Your task to perform on an android device: toggle data saver in the chrome app Image 0: 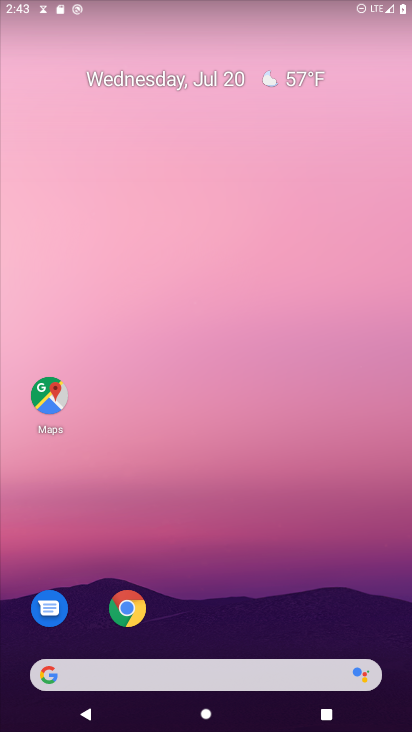
Step 0: click (127, 614)
Your task to perform on an android device: toggle data saver in the chrome app Image 1: 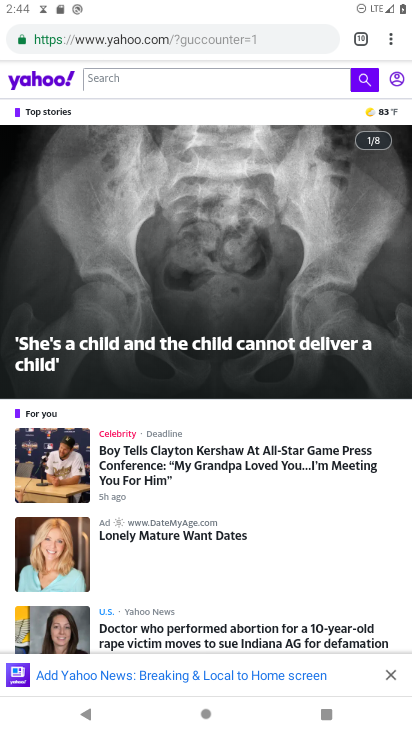
Step 1: click (392, 42)
Your task to perform on an android device: toggle data saver in the chrome app Image 2: 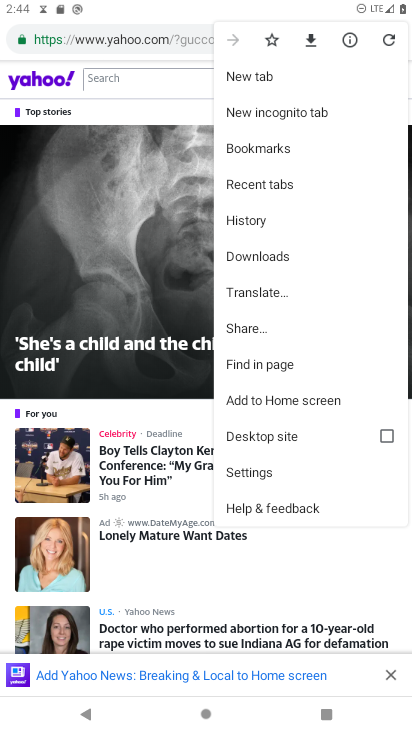
Step 2: click (255, 473)
Your task to perform on an android device: toggle data saver in the chrome app Image 3: 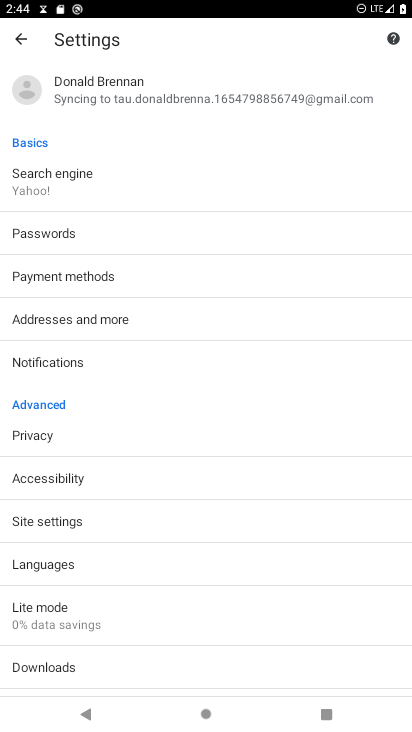
Step 3: click (30, 609)
Your task to perform on an android device: toggle data saver in the chrome app Image 4: 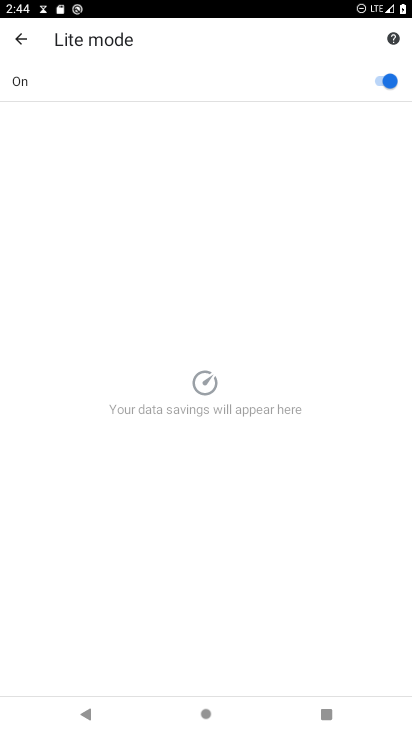
Step 4: click (386, 80)
Your task to perform on an android device: toggle data saver in the chrome app Image 5: 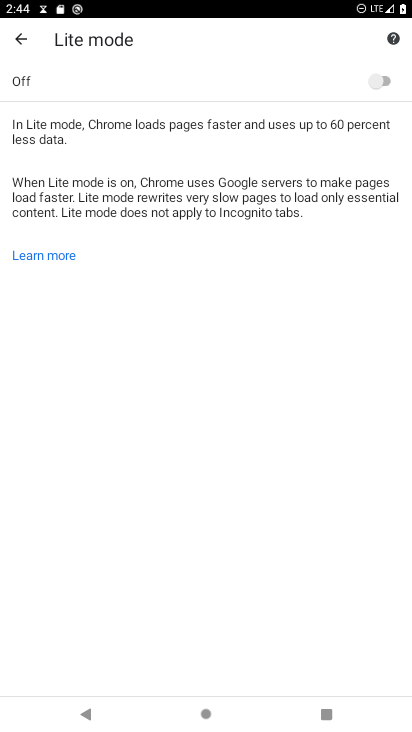
Step 5: task complete